Your task to perform on an android device: read, delete, or share a saved page in the chrome app Image 0: 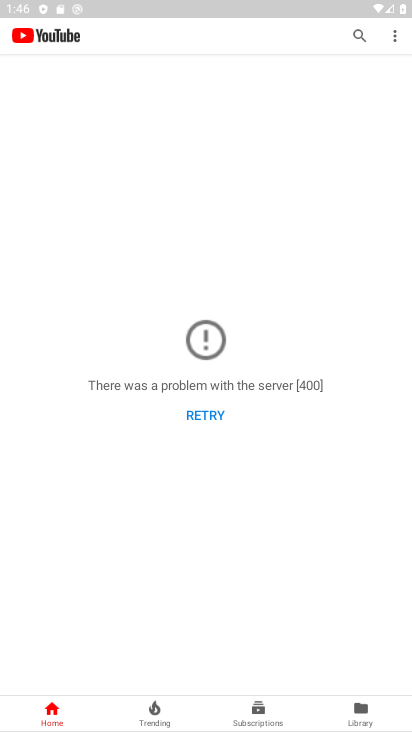
Step 0: press home button
Your task to perform on an android device: read, delete, or share a saved page in the chrome app Image 1: 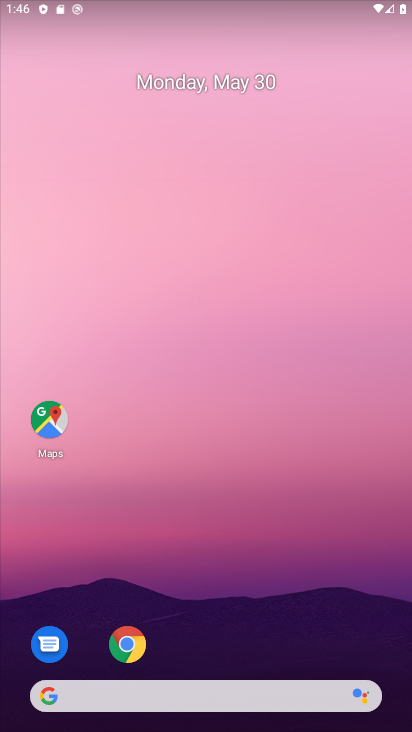
Step 1: click (138, 644)
Your task to perform on an android device: read, delete, or share a saved page in the chrome app Image 2: 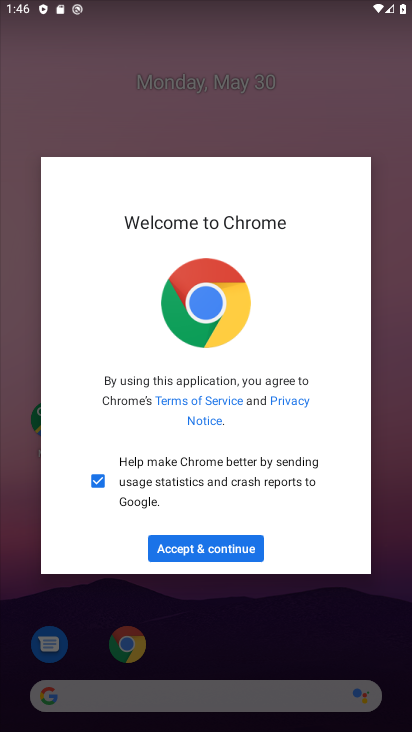
Step 2: click (207, 556)
Your task to perform on an android device: read, delete, or share a saved page in the chrome app Image 3: 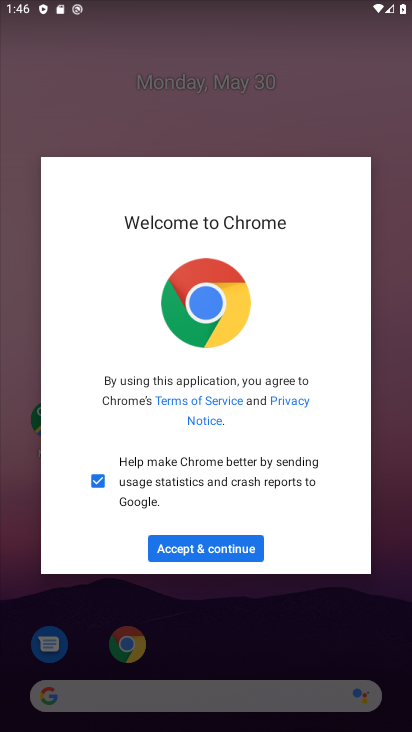
Step 3: click (207, 556)
Your task to perform on an android device: read, delete, or share a saved page in the chrome app Image 4: 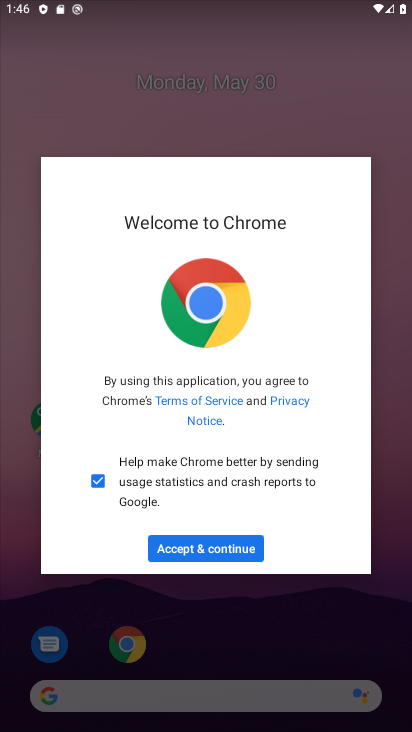
Step 4: click (207, 556)
Your task to perform on an android device: read, delete, or share a saved page in the chrome app Image 5: 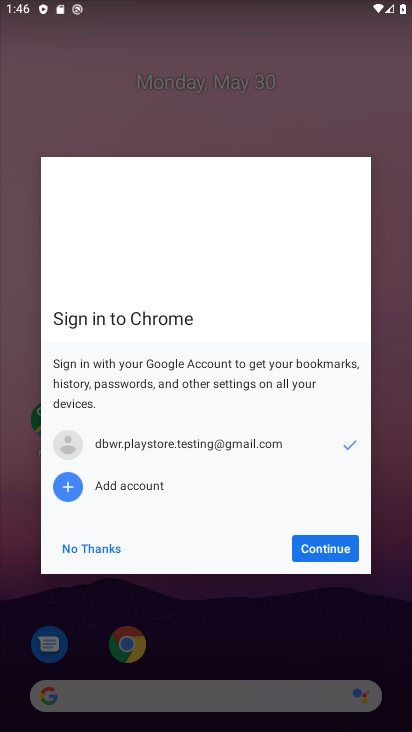
Step 5: click (345, 541)
Your task to perform on an android device: read, delete, or share a saved page in the chrome app Image 6: 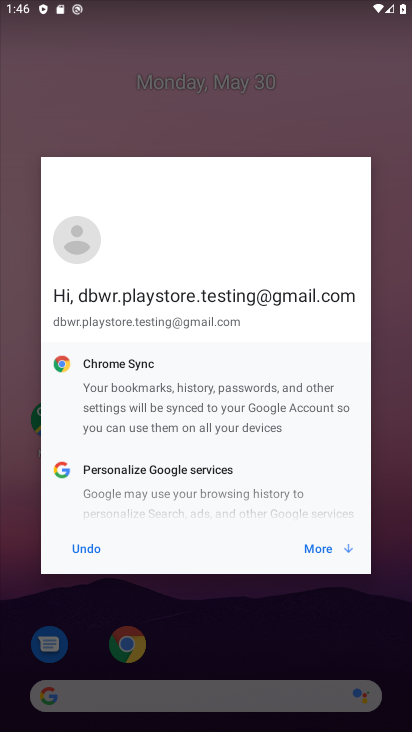
Step 6: click (329, 542)
Your task to perform on an android device: read, delete, or share a saved page in the chrome app Image 7: 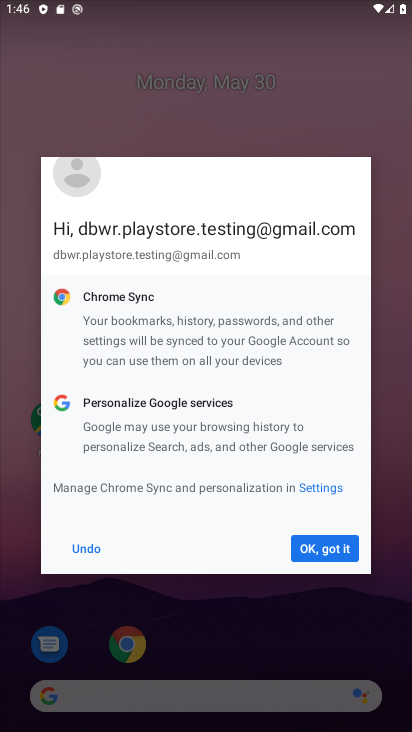
Step 7: click (329, 542)
Your task to perform on an android device: read, delete, or share a saved page in the chrome app Image 8: 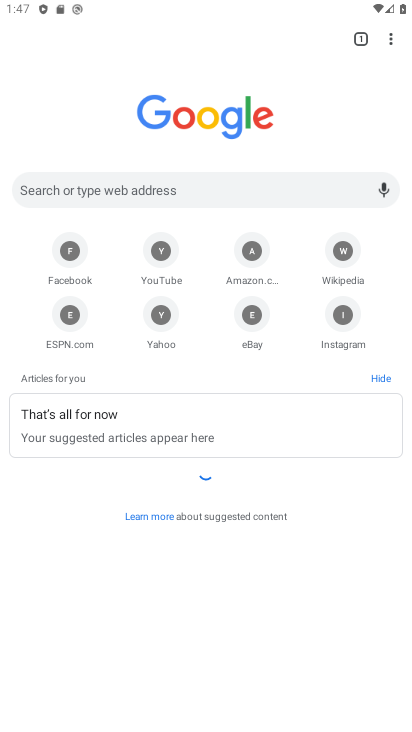
Step 8: click (390, 40)
Your task to perform on an android device: read, delete, or share a saved page in the chrome app Image 9: 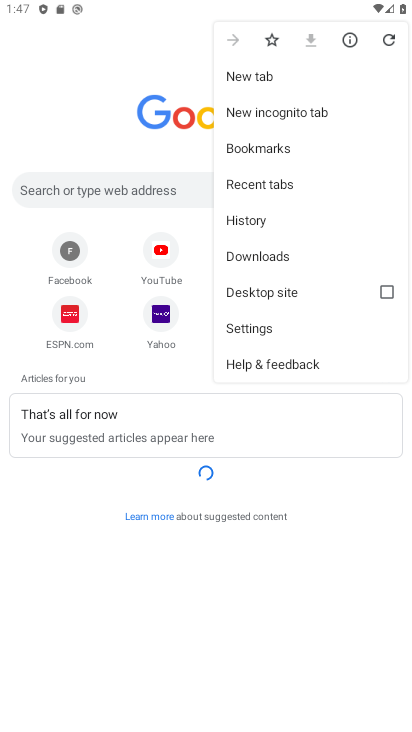
Step 9: click (246, 258)
Your task to perform on an android device: read, delete, or share a saved page in the chrome app Image 10: 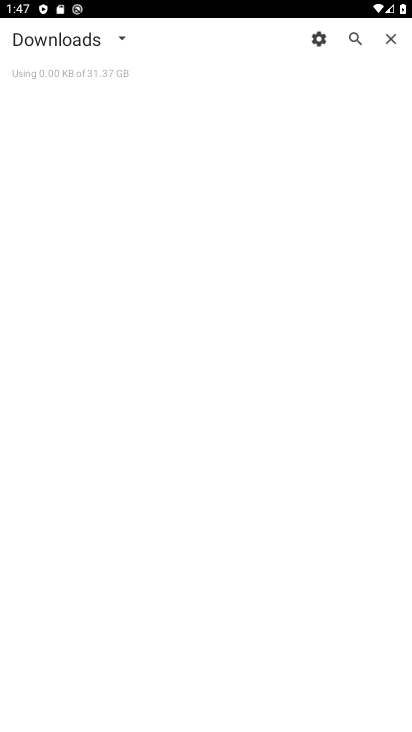
Step 10: task complete